Your task to perform on an android device: empty trash in the gmail app Image 0: 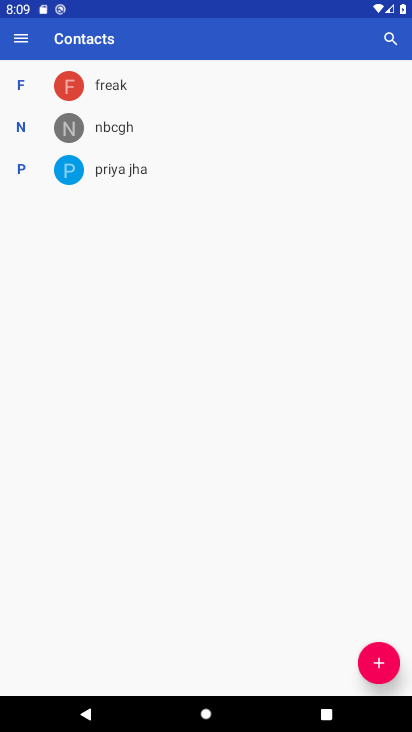
Step 0: press home button
Your task to perform on an android device: empty trash in the gmail app Image 1: 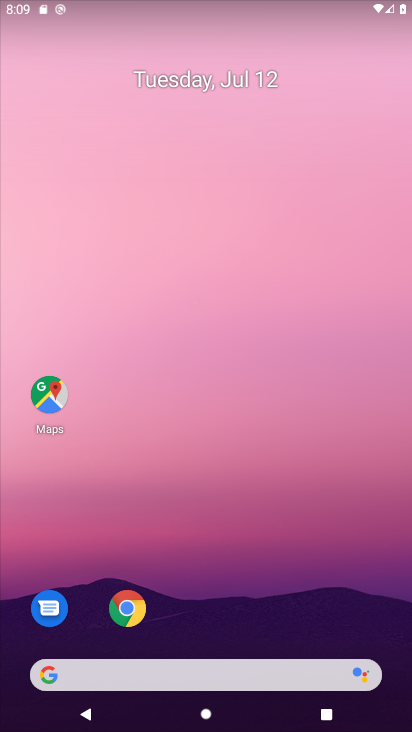
Step 1: drag from (179, 676) to (305, 274)
Your task to perform on an android device: empty trash in the gmail app Image 2: 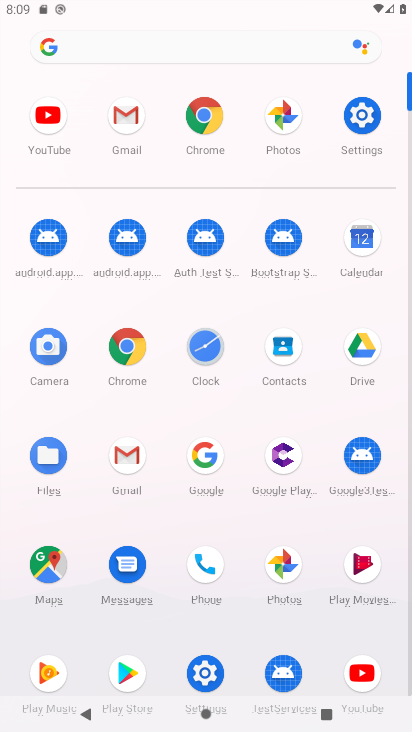
Step 2: click (122, 128)
Your task to perform on an android device: empty trash in the gmail app Image 3: 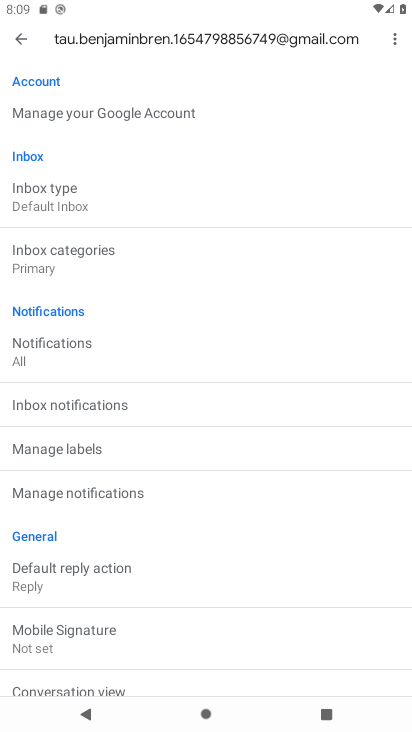
Step 3: click (22, 37)
Your task to perform on an android device: empty trash in the gmail app Image 4: 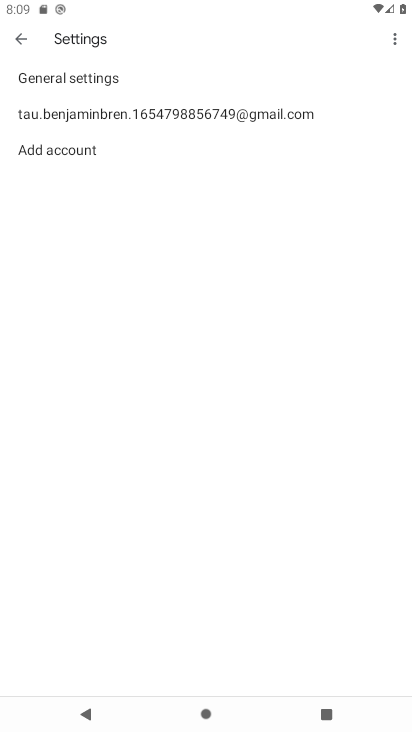
Step 4: click (22, 38)
Your task to perform on an android device: empty trash in the gmail app Image 5: 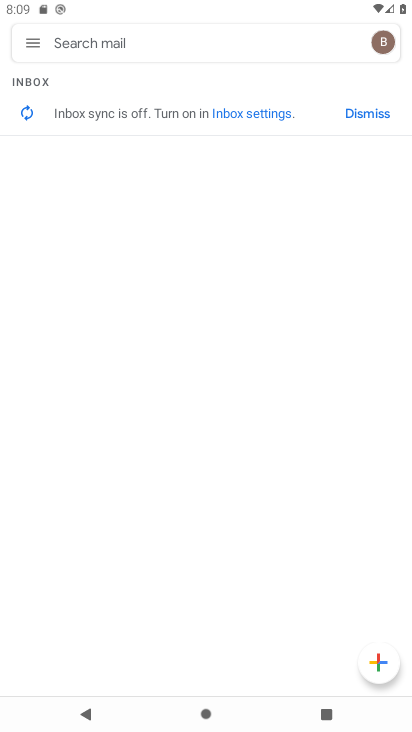
Step 5: click (31, 39)
Your task to perform on an android device: empty trash in the gmail app Image 6: 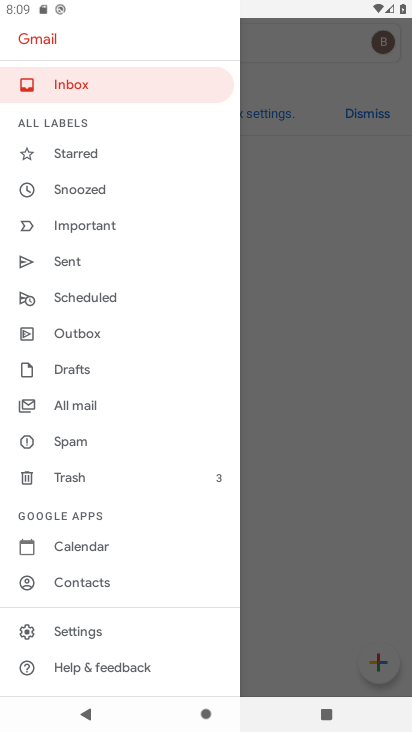
Step 6: click (60, 472)
Your task to perform on an android device: empty trash in the gmail app Image 7: 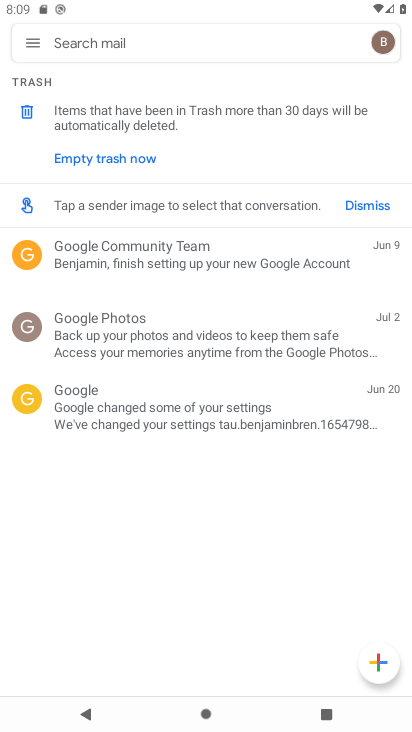
Step 7: click (122, 153)
Your task to perform on an android device: empty trash in the gmail app Image 8: 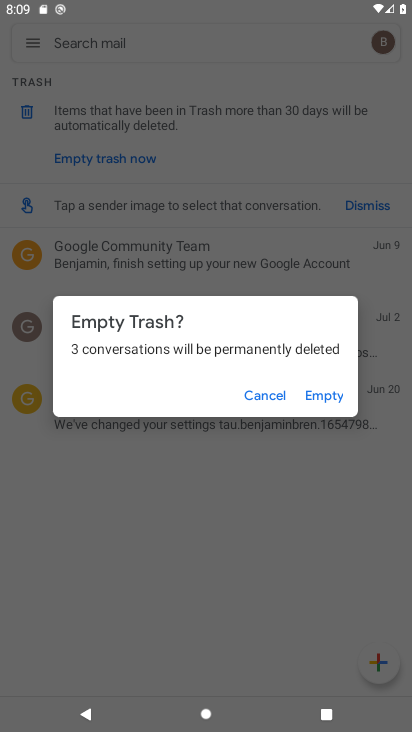
Step 8: click (324, 393)
Your task to perform on an android device: empty trash in the gmail app Image 9: 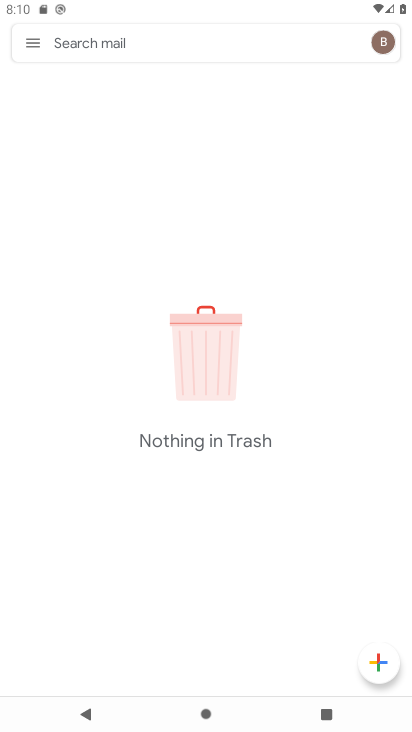
Step 9: task complete